Your task to perform on an android device: Go to internet settings Image 0: 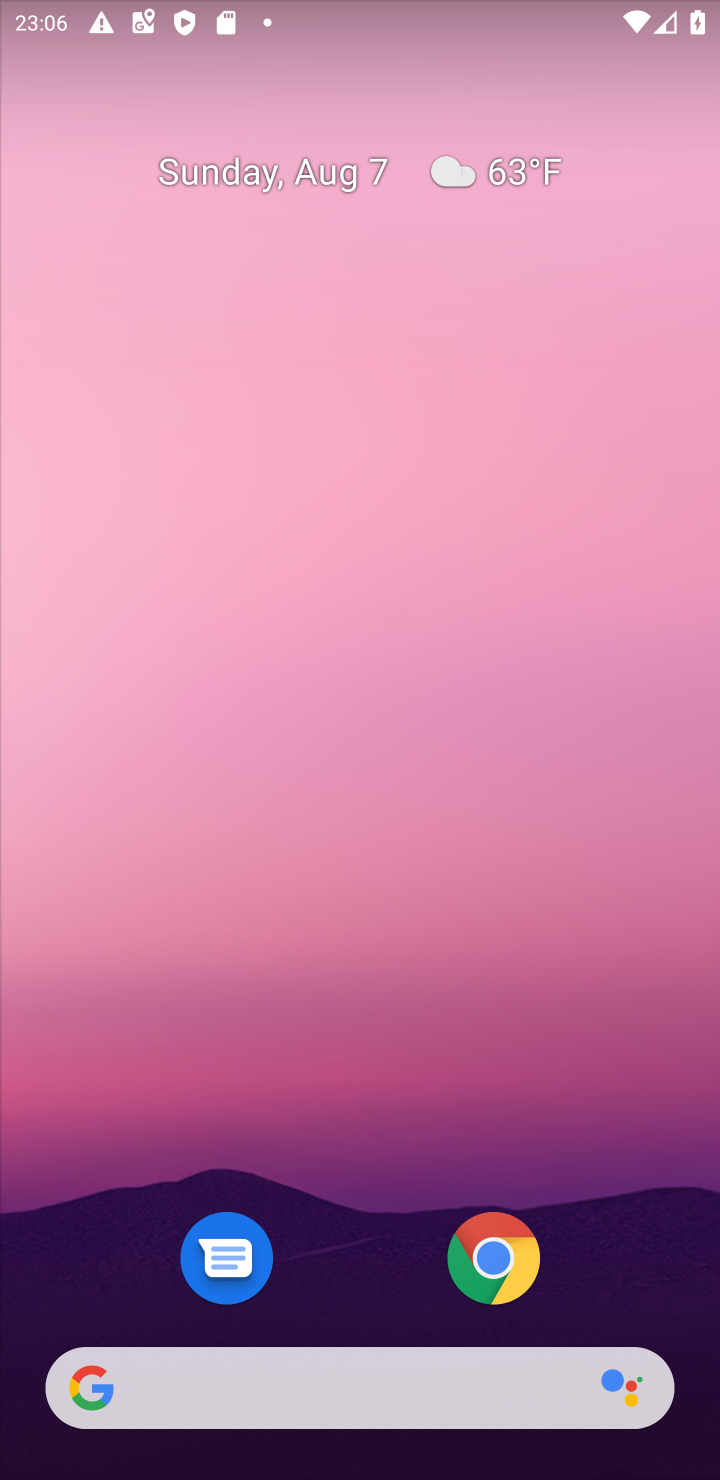
Step 0: drag from (418, 560) to (473, 49)
Your task to perform on an android device: Go to internet settings Image 1: 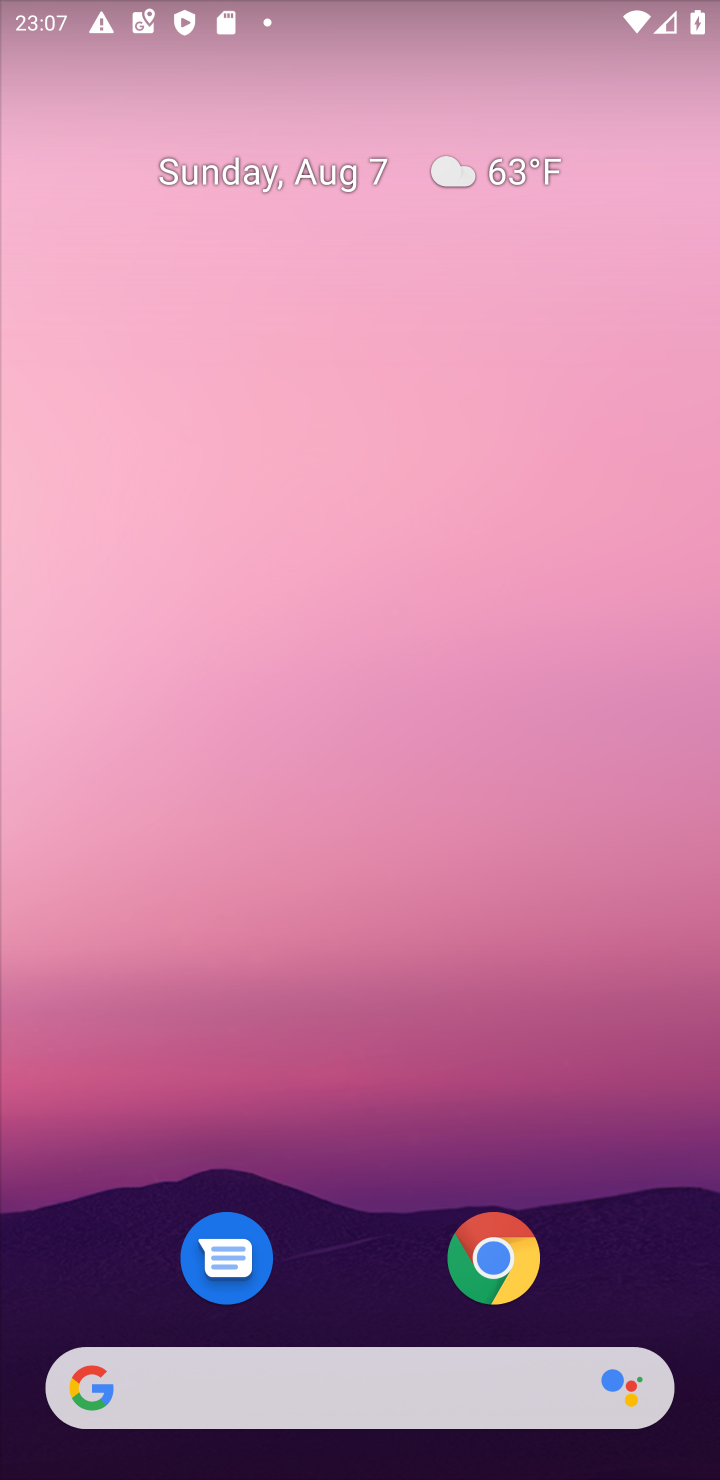
Step 1: drag from (414, 1248) to (564, 55)
Your task to perform on an android device: Go to internet settings Image 2: 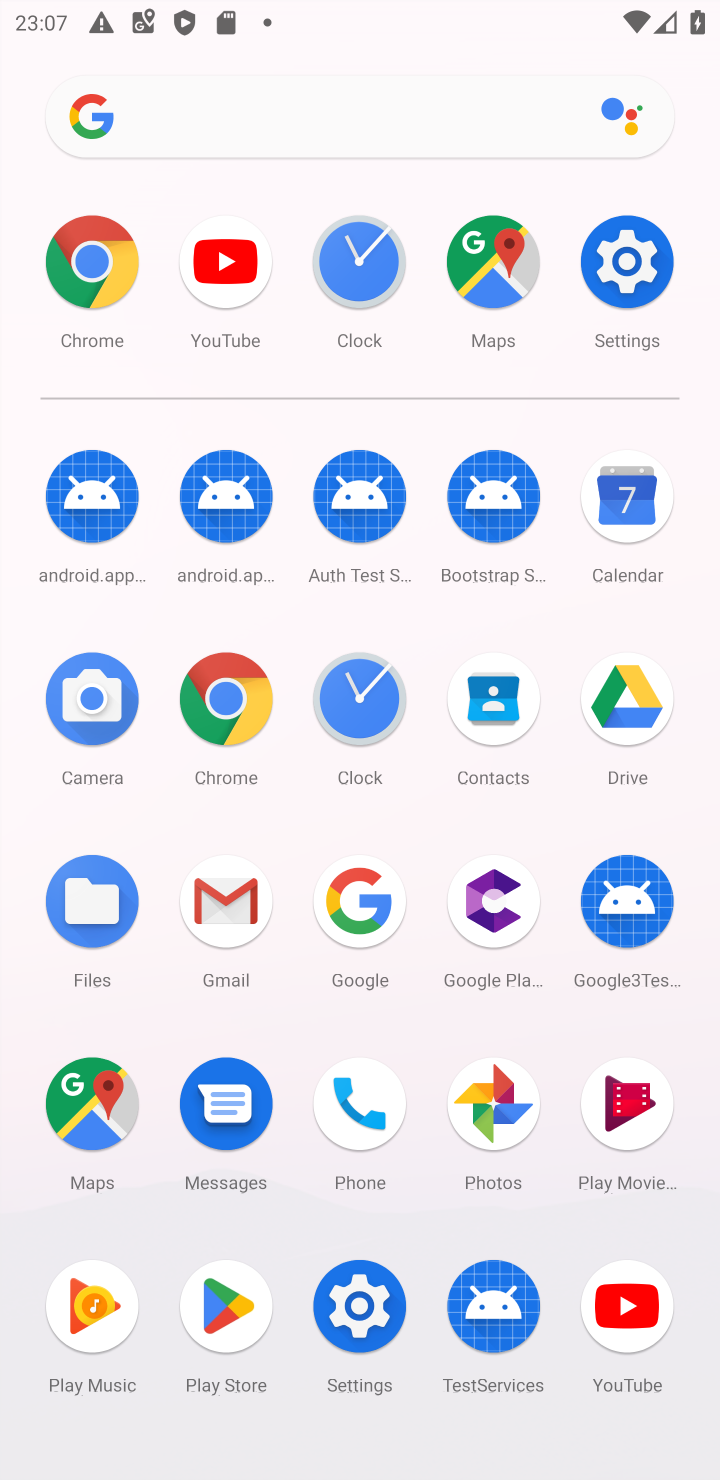
Step 2: click (354, 1297)
Your task to perform on an android device: Go to internet settings Image 3: 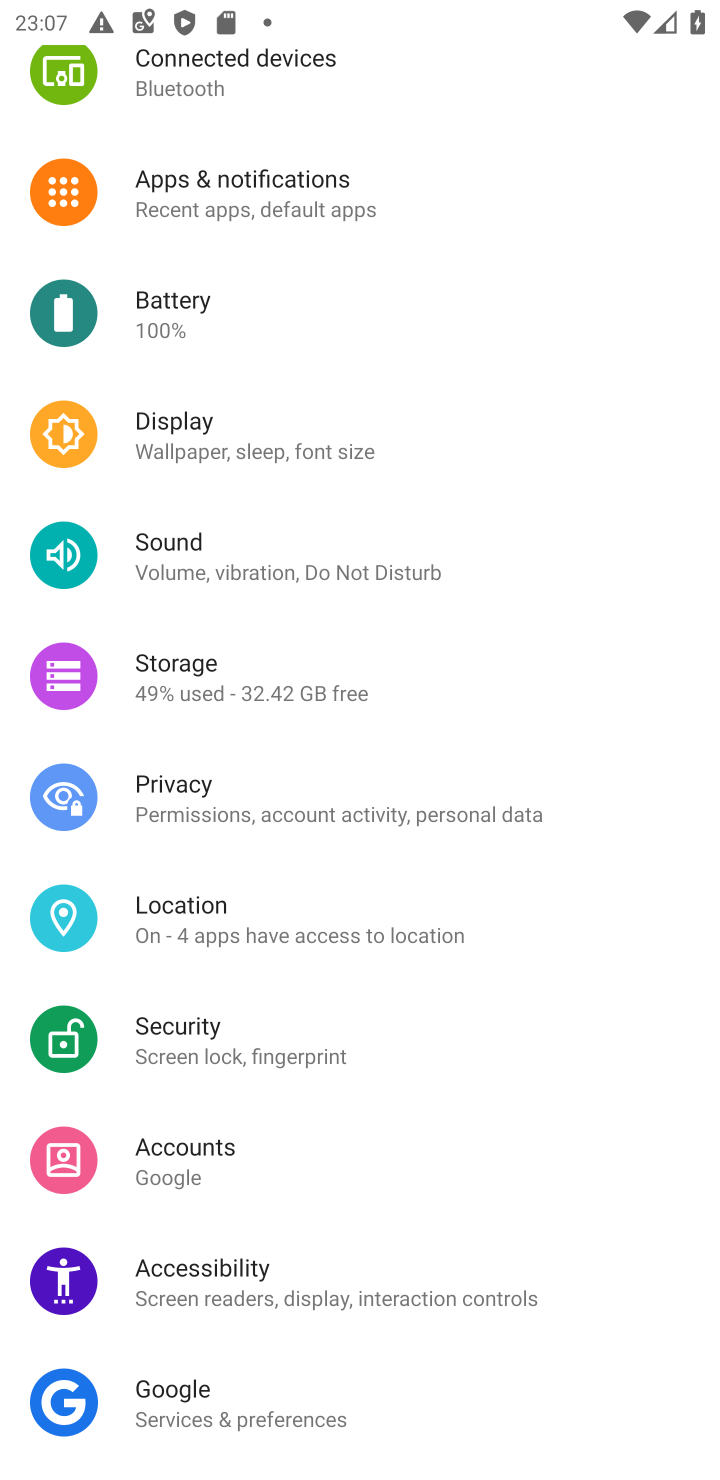
Step 3: drag from (320, 197) to (122, 1320)
Your task to perform on an android device: Go to internet settings Image 4: 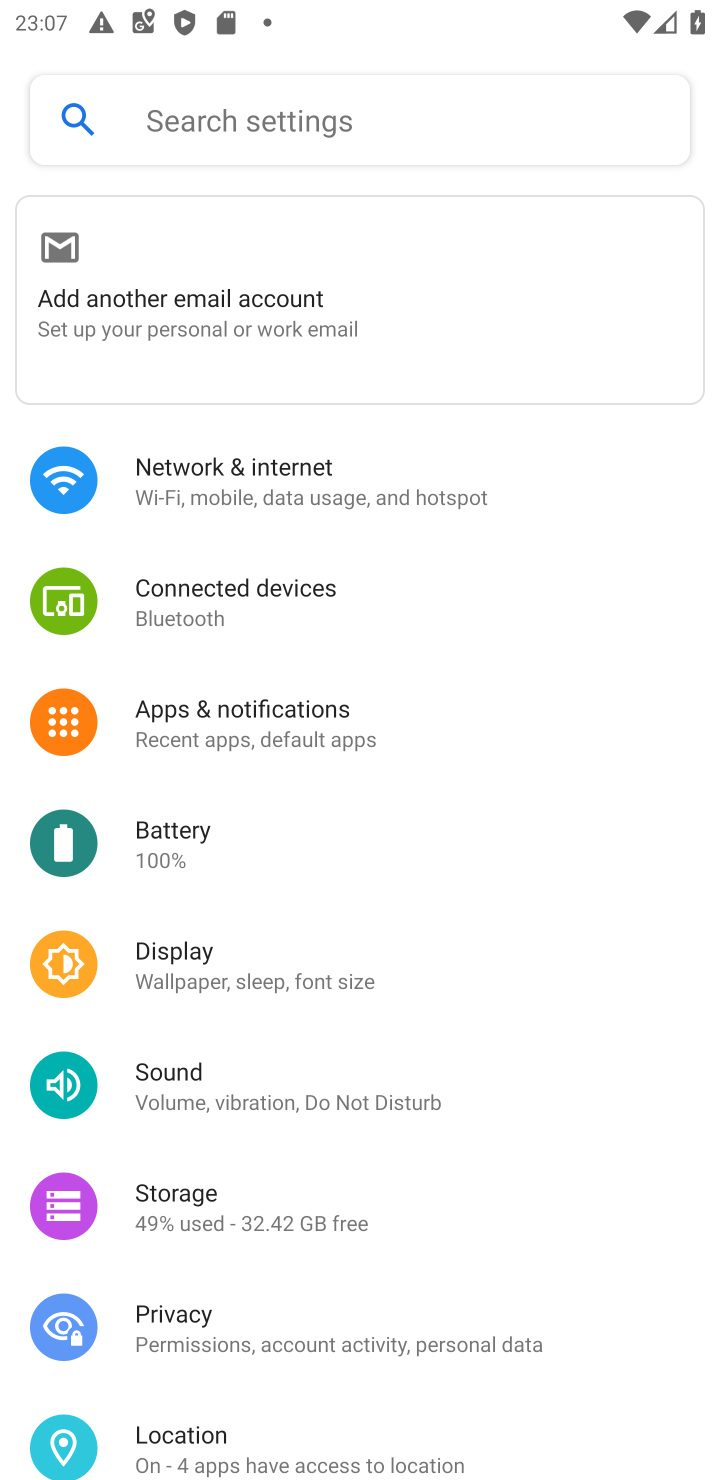
Step 4: click (256, 509)
Your task to perform on an android device: Go to internet settings Image 5: 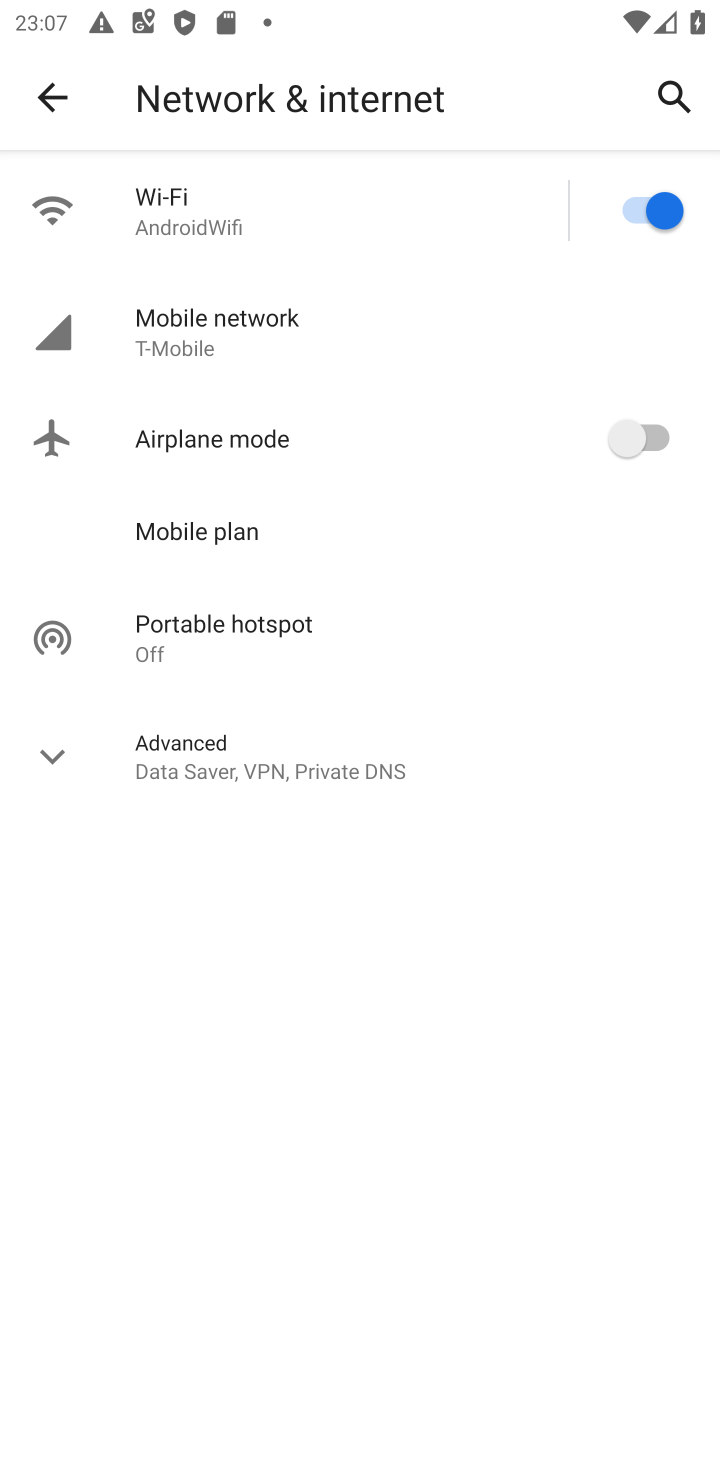
Step 5: task complete